Your task to perform on an android device: Open accessibility settings Image 0: 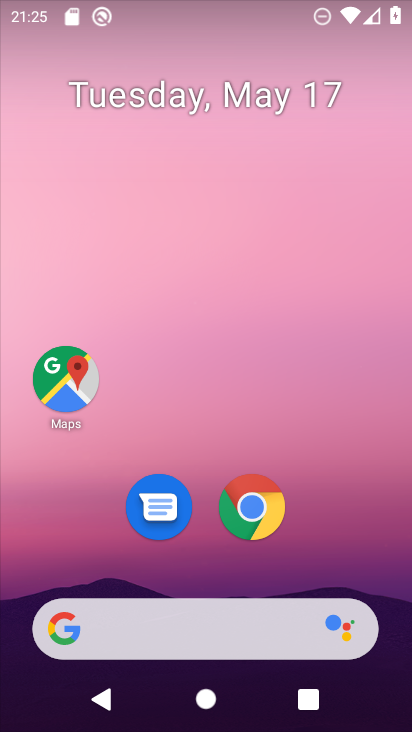
Step 0: drag from (365, 591) to (346, 29)
Your task to perform on an android device: Open accessibility settings Image 1: 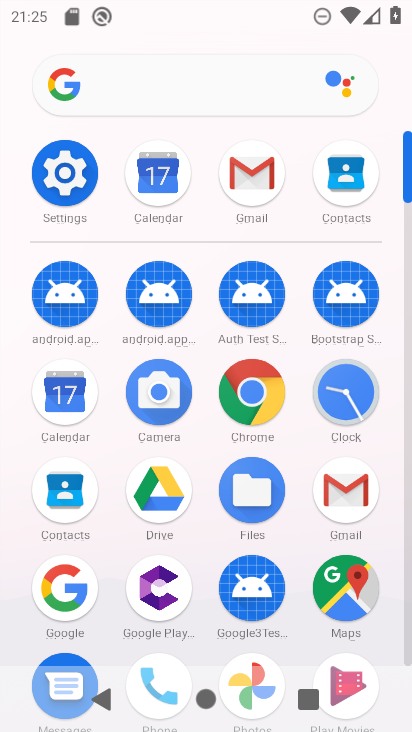
Step 1: click (64, 181)
Your task to perform on an android device: Open accessibility settings Image 2: 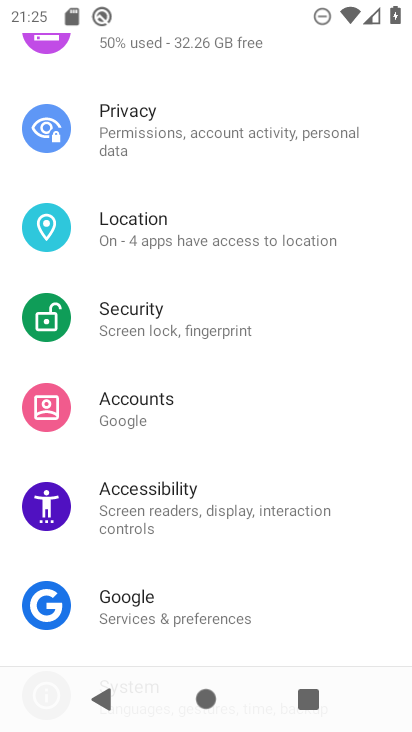
Step 2: click (139, 504)
Your task to perform on an android device: Open accessibility settings Image 3: 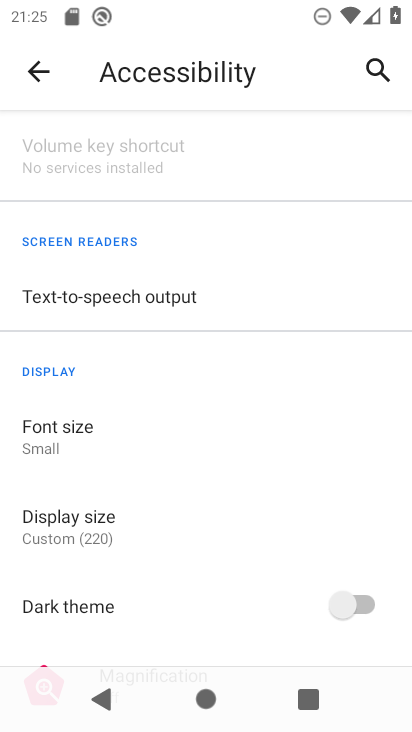
Step 3: task complete